Your task to perform on an android device: Go to battery settings Image 0: 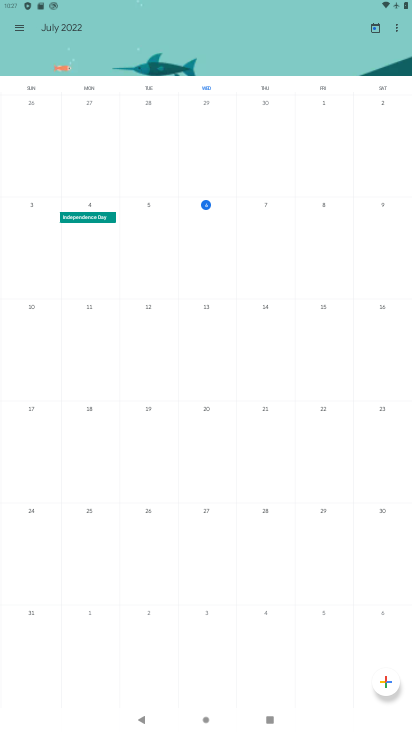
Step 0: press home button
Your task to perform on an android device: Go to battery settings Image 1: 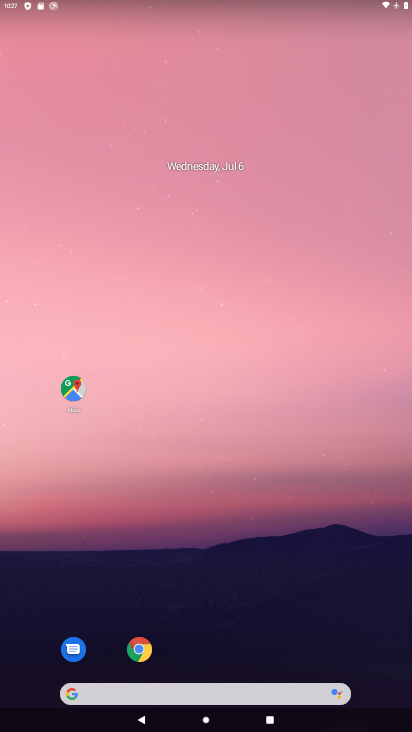
Step 1: drag from (368, 698) to (361, 65)
Your task to perform on an android device: Go to battery settings Image 2: 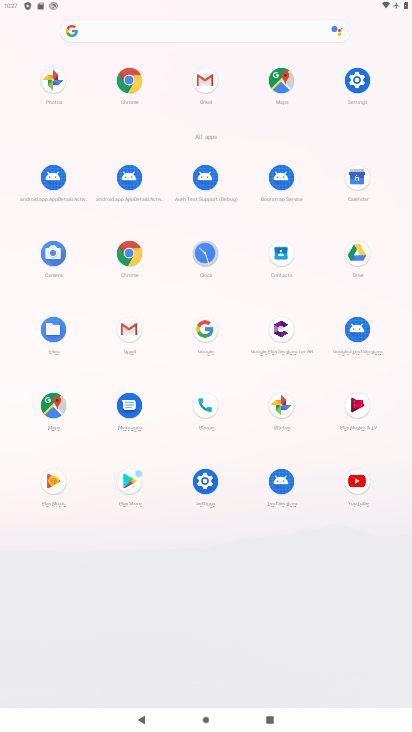
Step 2: click (360, 86)
Your task to perform on an android device: Go to battery settings Image 3: 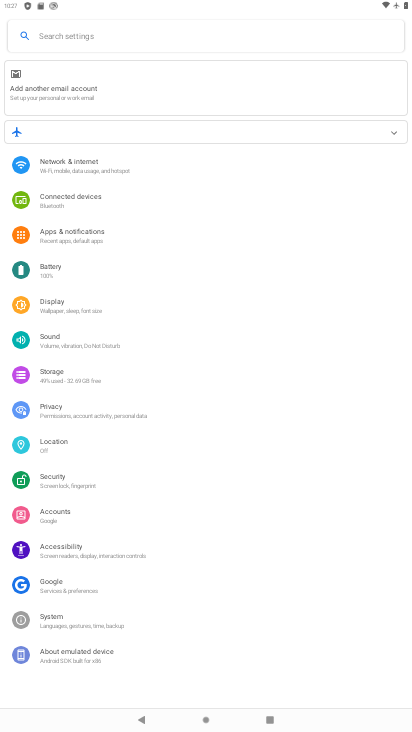
Step 3: click (48, 256)
Your task to perform on an android device: Go to battery settings Image 4: 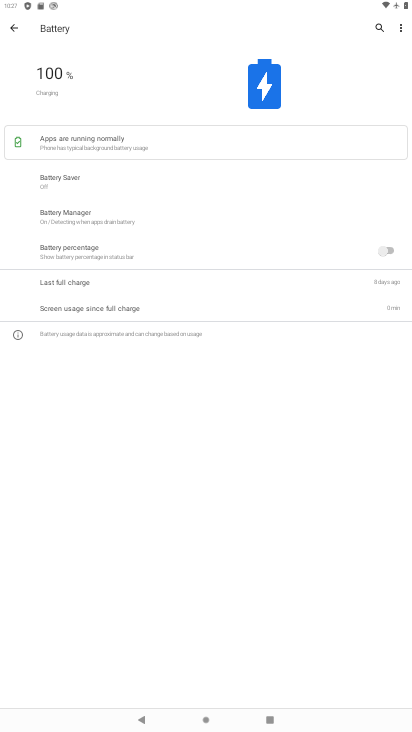
Step 4: task complete